Your task to perform on an android device: toggle javascript in the chrome app Image 0: 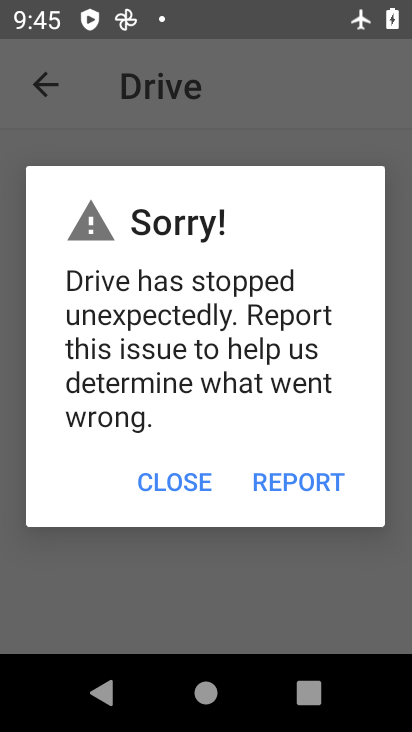
Step 0: press home button
Your task to perform on an android device: toggle javascript in the chrome app Image 1: 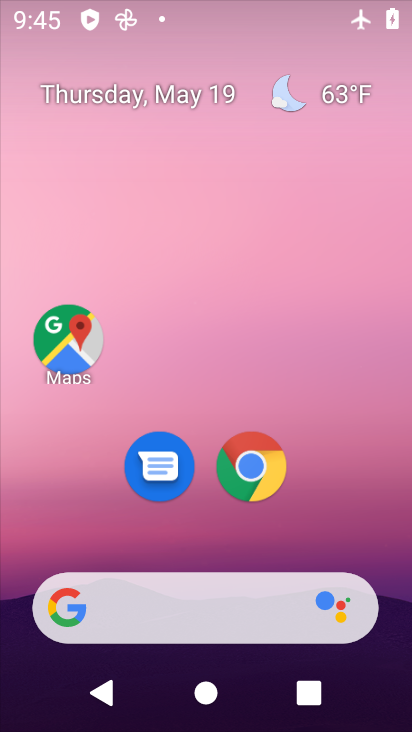
Step 1: drag from (389, 602) to (244, 54)
Your task to perform on an android device: toggle javascript in the chrome app Image 2: 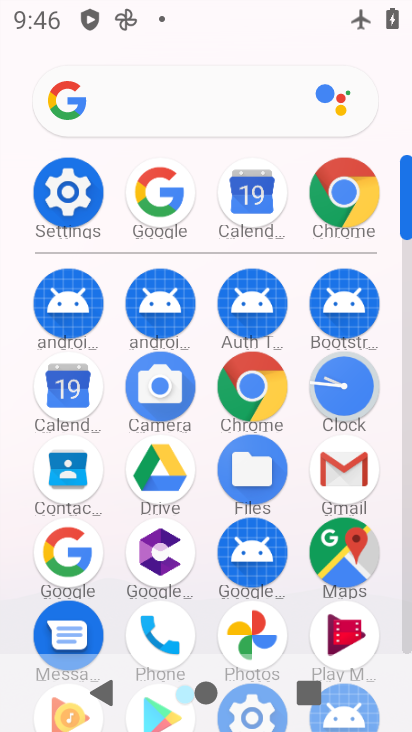
Step 2: click (251, 383)
Your task to perform on an android device: toggle javascript in the chrome app Image 3: 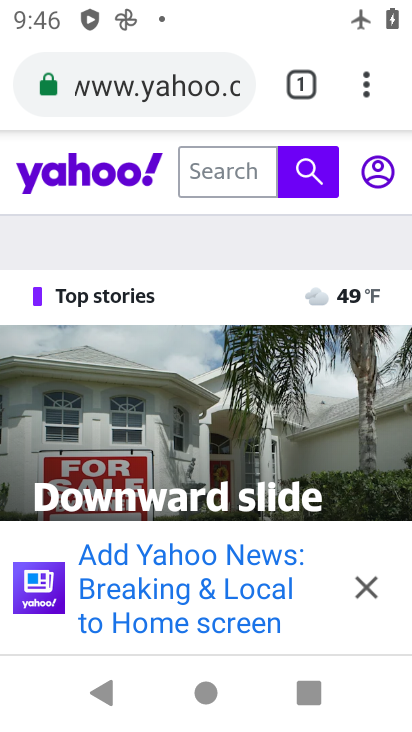
Step 3: press back button
Your task to perform on an android device: toggle javascript in the chrome app Image 4: 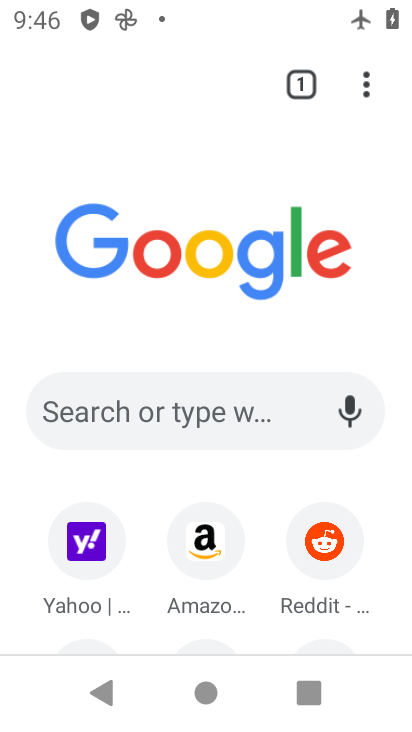
Step 4: click (373, 77)
Your task to perform on an android device: toggle javascript in the chrome app Image 5: 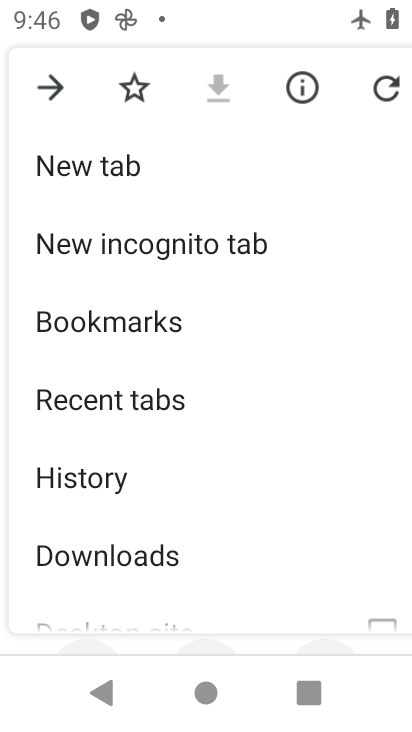
Step 5: drag from (222, 614) to (289, 375)
Your task to perform on an android device: toggle javascript in the chrome app Image 6: 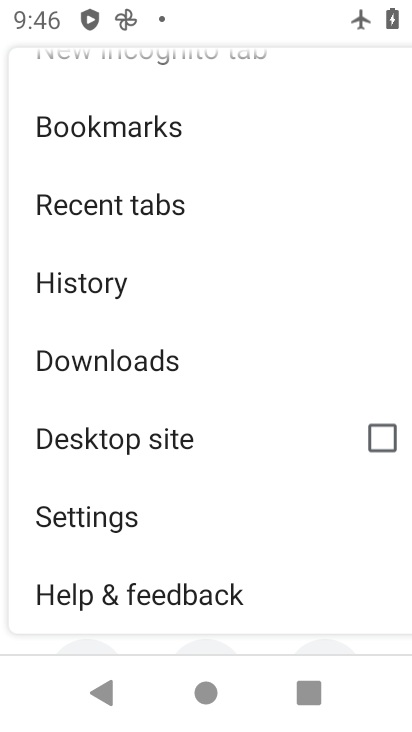
Step 6: click (123, 515)
Your task to perform on an android device: toggle javascript in the chrome app Image 7: 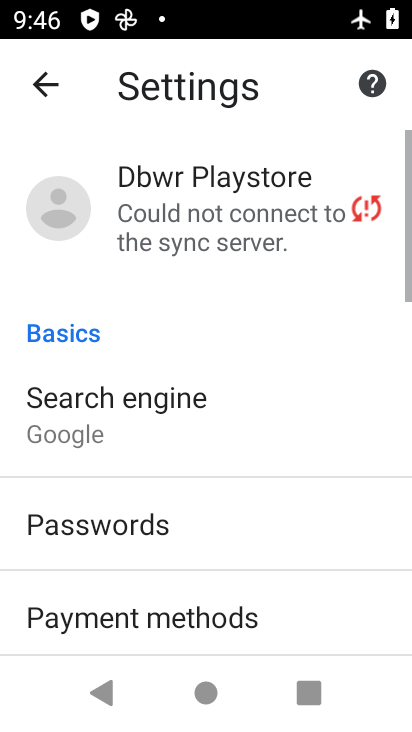
Step 7: drag from (123, 515) to (179, 113)
Your task to perform on an android device: toggle javascript in the chrome app Image 8: 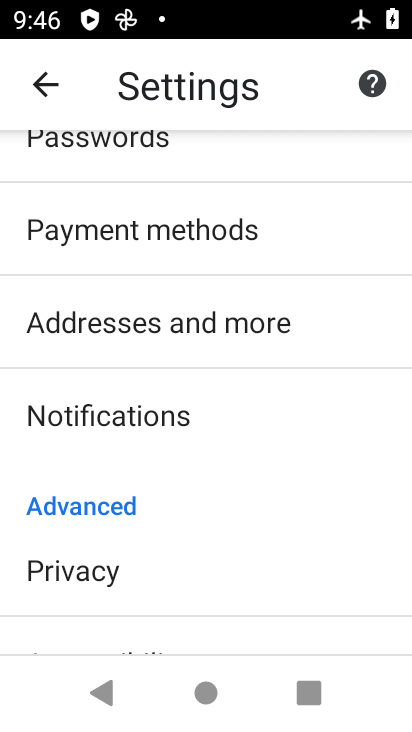
Step 8: drag from (223, 597) to (256, 189)
Your task to perform on an android device: toggle javascript in the chrome app Image 9: 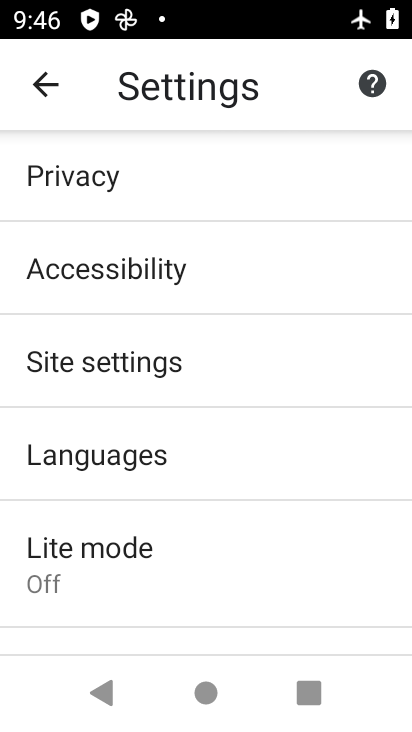
Step 9: click (160, 374)
Your task to perform on an android device: toggle javascript in the chrome app Image 10: 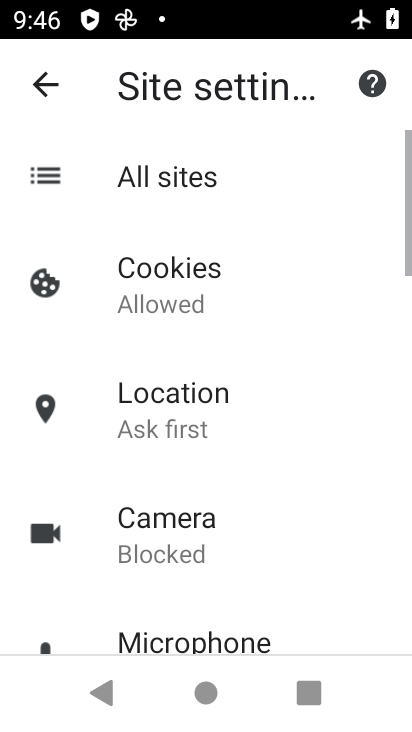
Step 10: drag from (180, 613) to (264, 169)
Your task to perform on an android device: toggle javascript in the chrome app Image 11: 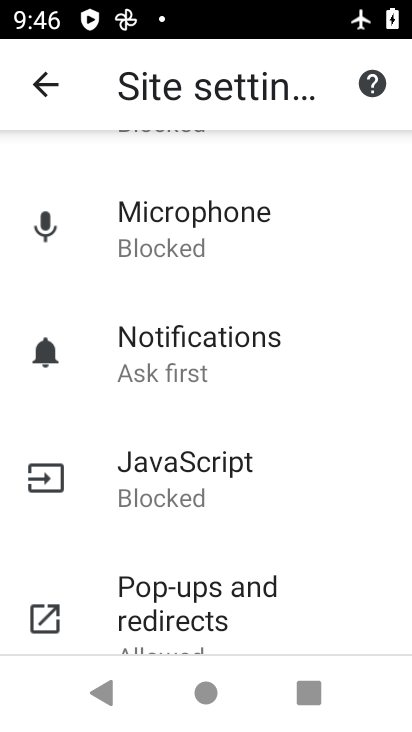
Step 11: drag from (264, 593) to (274, 231)
Your task to perform on an android device: toggle javascript in the chrome app Image 12: 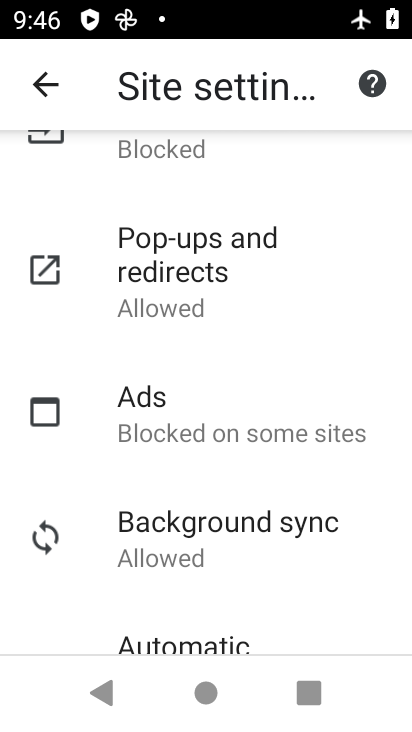
Step 12: click (198, 163)
Your task to perform on an android device: toggle javascript in the chrome app Image 13: 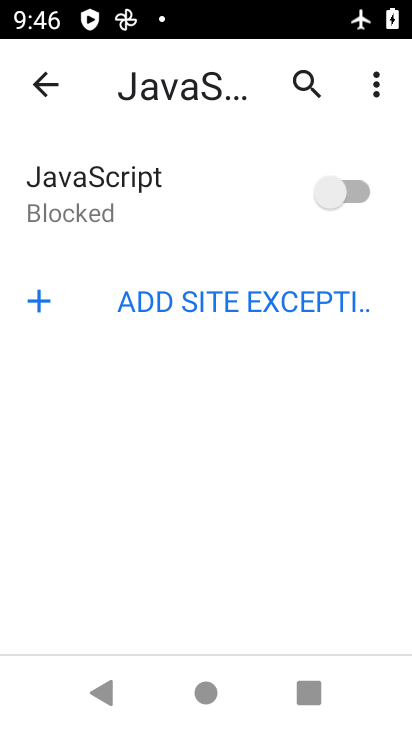
Step 13: click (265, 205)
Your task to perform on an android device: toggle javascript in the chrome app Image 14: 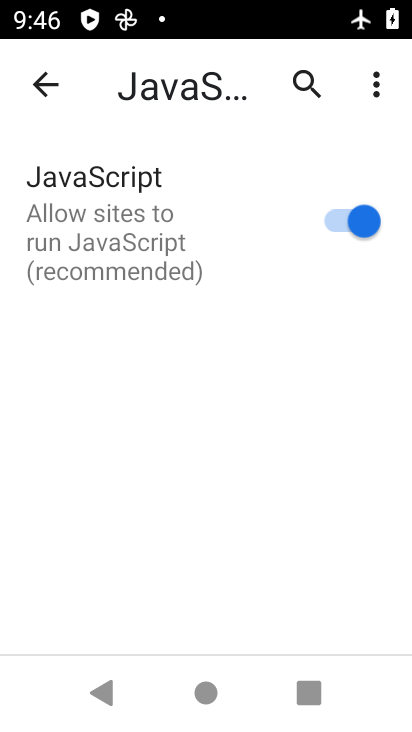
Step 14: task complete